Your task to perform on an android device: Go to location settings Image 0: 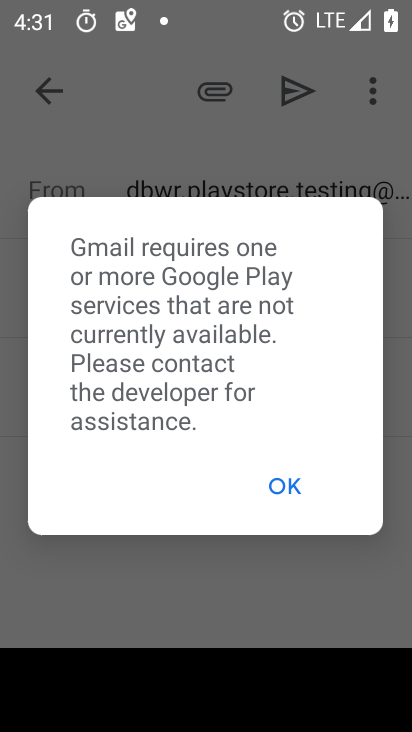
Step 0: click (292, 486)
Your task to perform on an android device: Go to location settings Image 1: 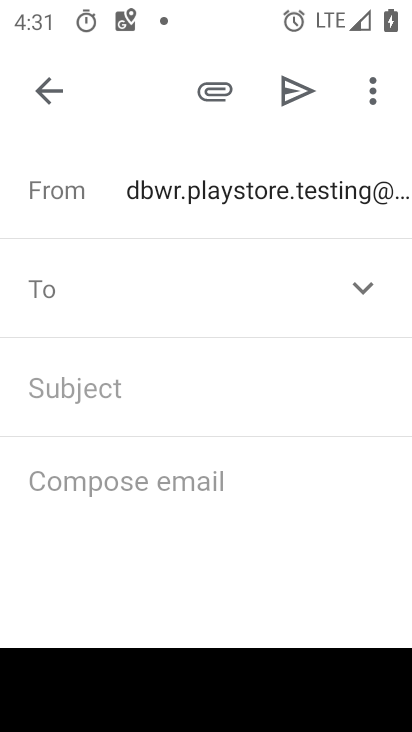
Step 1: click (47, 87)
Your task to perform on an android device: Go to location settings Image 2: 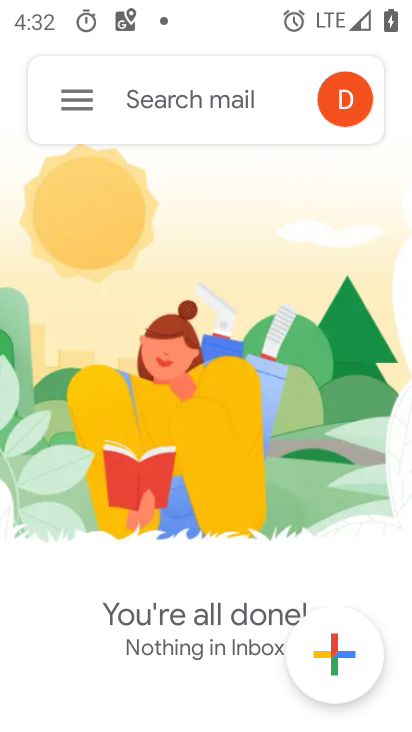
Step 2: press back button
Your task to perform on an android device: Go to location settings Image 3: 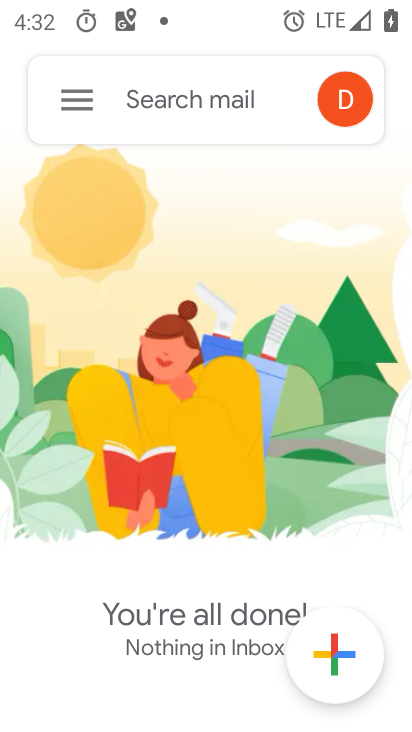
Step 3: press back button
Your task to perform on an android device: Go to location settings Image 4: 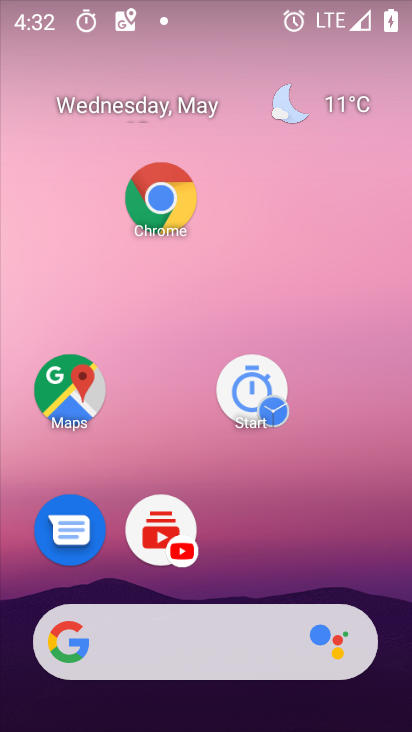
Step 4: drag from (282, 549) to (230, 117)
Your task to perform on an android device: Go to location settings Image 5: 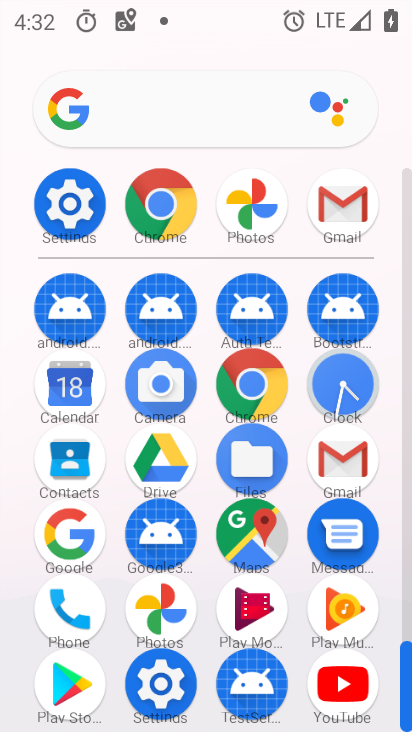
Step 5: click (58, 209)
Your task to perform on an android device: Go to location settings Image 6: 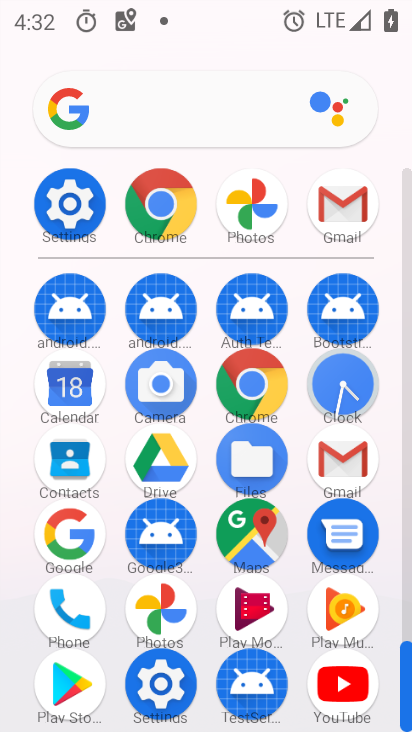
Step 6: click (60, 207)
Your task to perform on an android device: Go to location settings Image 7: 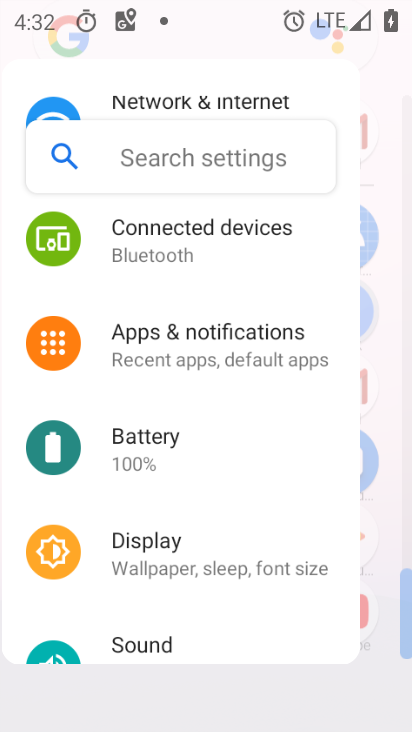
Step 7: click (60, 207)
Your task to perform on an android device: Go to location settings Image 8: 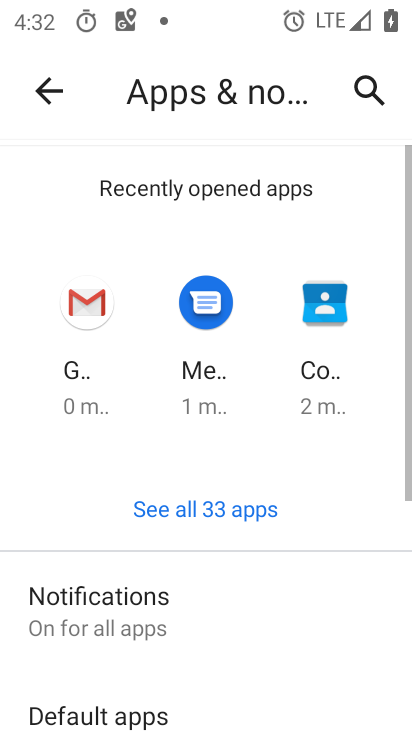
Step 8: click (30, 89)
Your task to perform on an android device: Go to location settings Image 9: 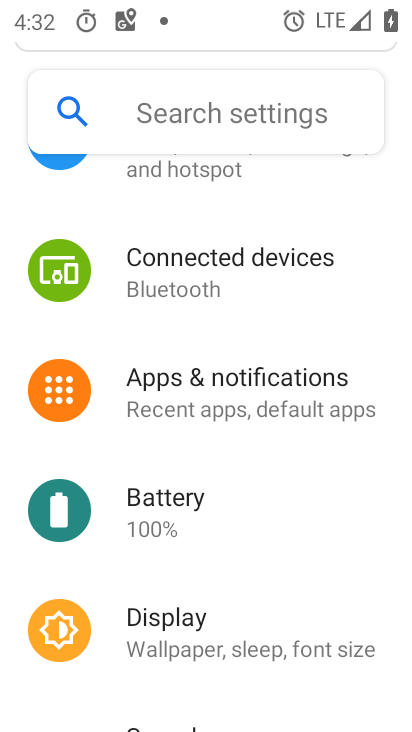
Step 9: drag from (221, 580) to (219, 300)
Your task to perform on an android device: Go to location settings Image 10: 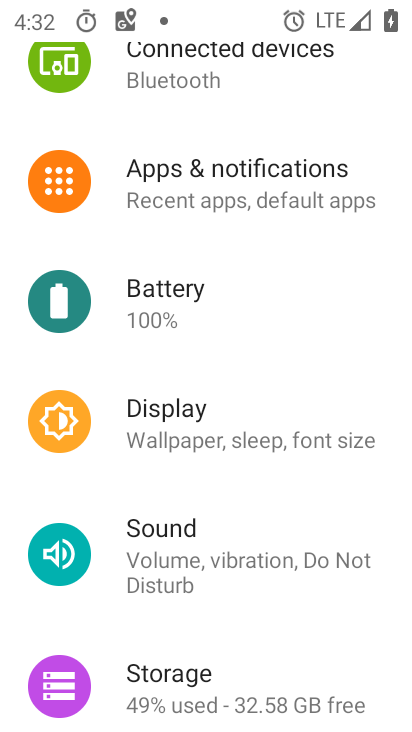
Step 10: drag from (215, 498) to (184, 226)
Your task to perform on an android device: Go to location settings Image 11: 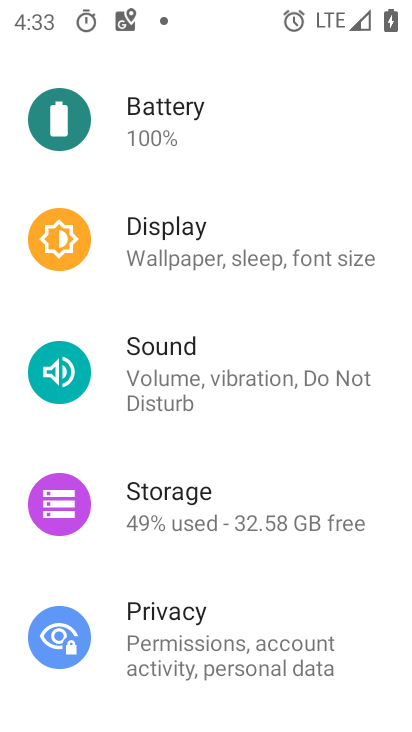
Step 11: drag from (180, 561) to (236, 202)
Your task to perform on an android device: Go to location settings Image 12: 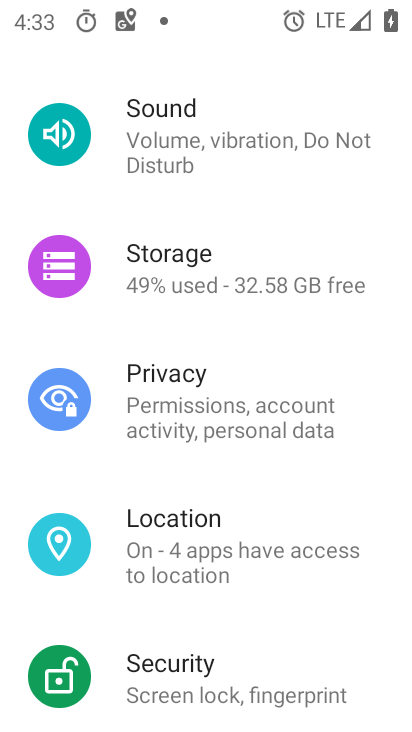
Step 12: drag from (189, 433) to (227, 134)
Your task to perform on an android device: Go to location settings Image 13: 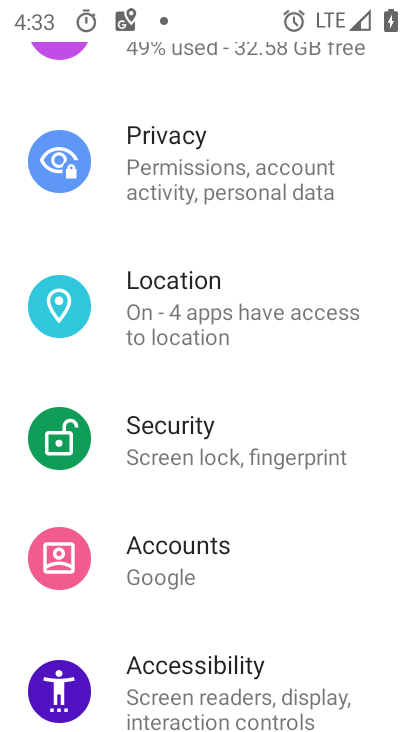
Step 13: click (202, 317)
Your task to perform on an android device: Go to location settings Image 14: 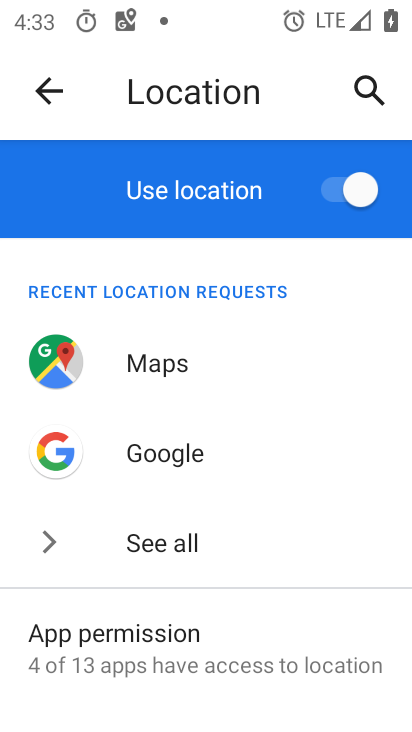
Step 14: task complete